Your task to perform on an android device: Open battery settings Image 0: 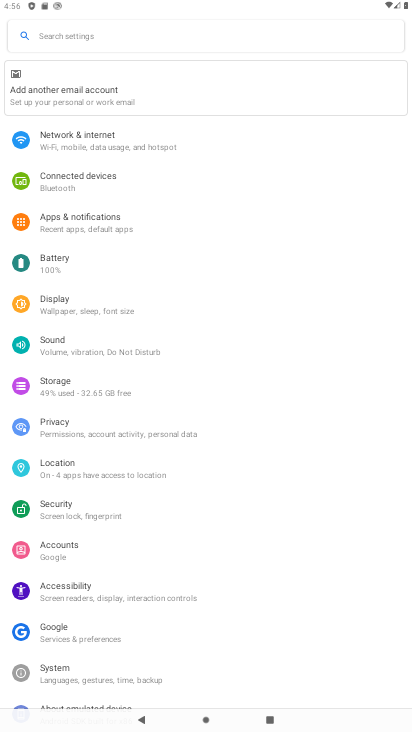
Step 0: click (155, 262)
Your task to perform on an android device: Open battery settings Image 1: 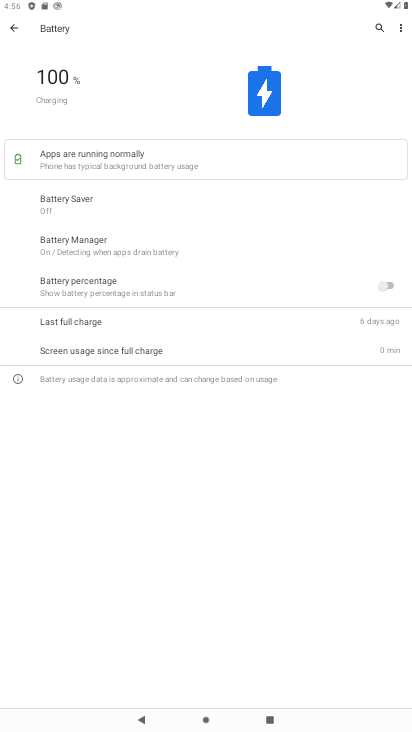
Step 1: task complete